Your task to perform on an android device: open wifi settings Image 0: 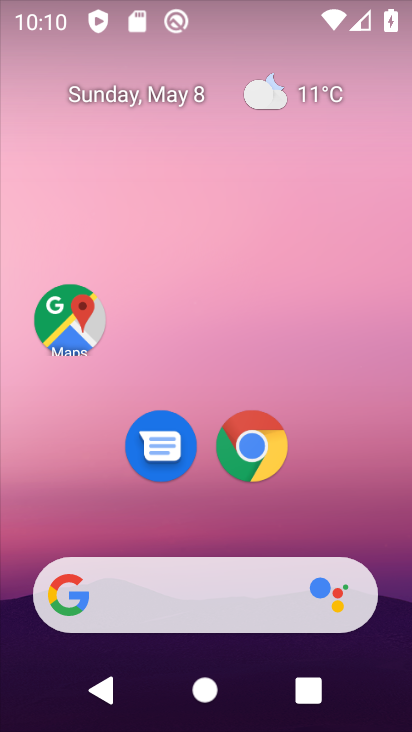
Step 0: drag from (344, 535) to (332, 0)
Your task to perform on an android device: open wifi settings Image 1: 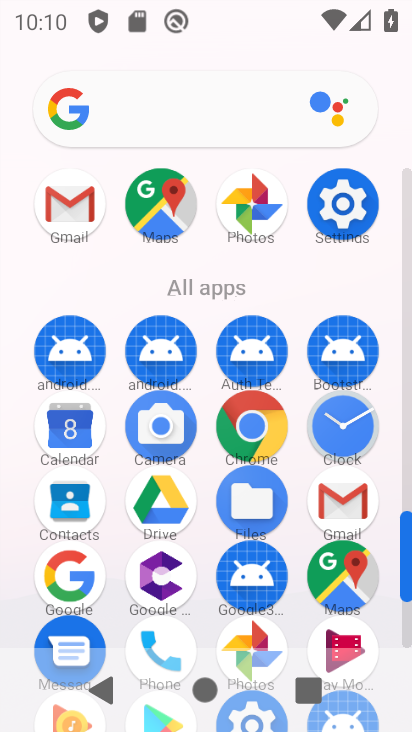
Step 1: click (347, 204)
Your task to perform on an android device: open wifi settings Image 2: 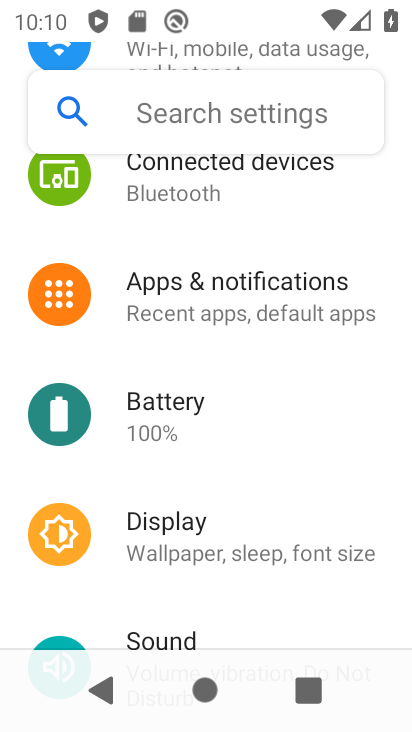
Step 2: drag from (185, 226) to (176, 474)
Your task to perform on an android device: open wifi settings Image 3: 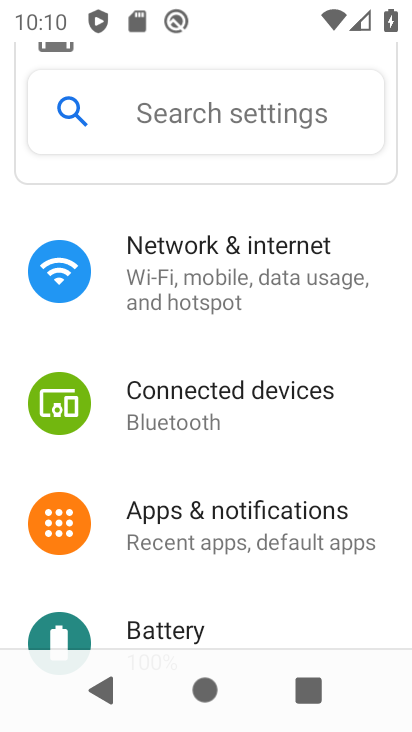
Step 3: click (206, 294)
Your task to perform on an android device: open wifi settings Image 4: 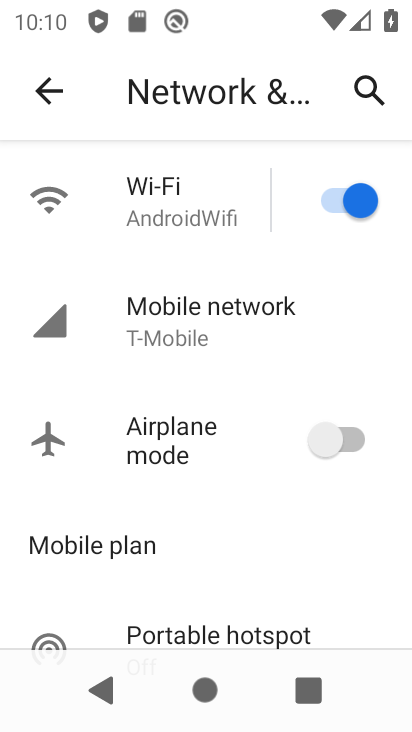
Step 4: click (155, 195)
Your task to perform on an android device: open wifi settings Image 5: 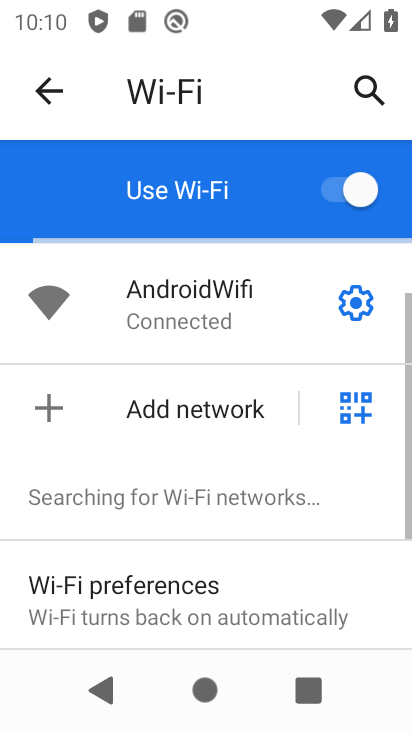
Step 5: task complete